Your task to perform on an android device: show emergency info Image 0: 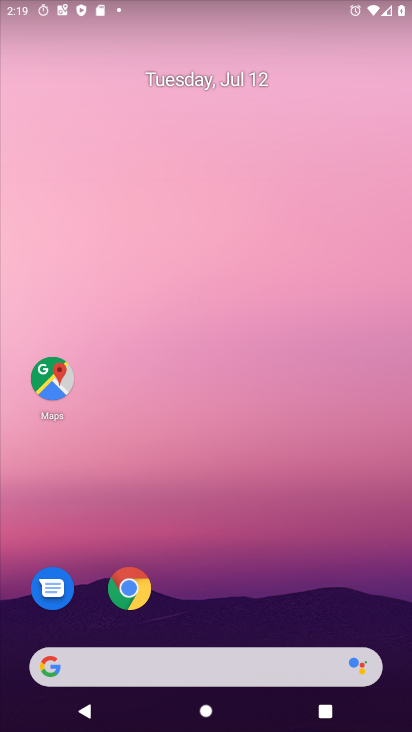
Step 0: click (226, 143)
Your task to perform on an android device: show emergency info Image 1: 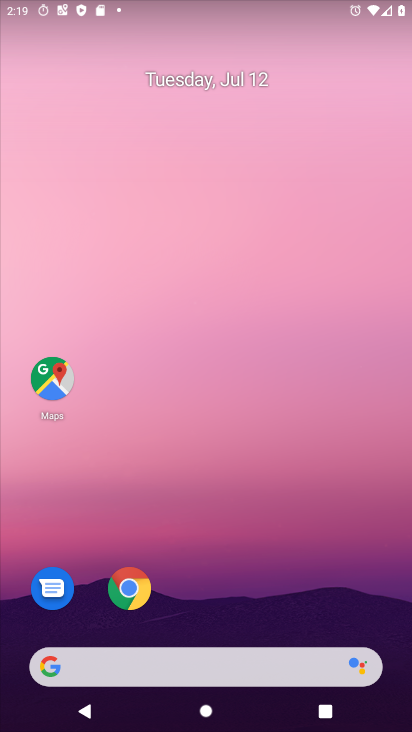
Step 1: drag from (198, 568) to (218, 101)
Your task to perform on an android device: show emergency info Image 2: 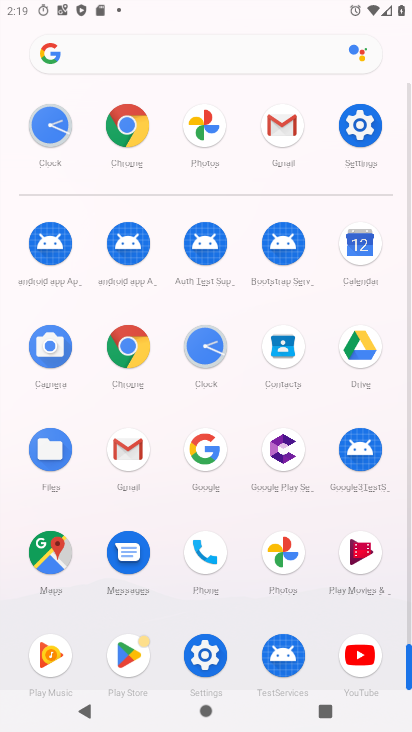
Step 2: click (205, 654)
Your task to perform on an android device: show emergency info Image 3: 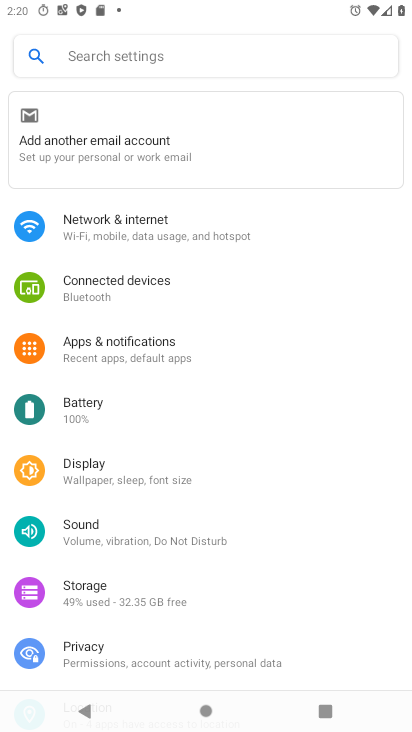
Step 3: drag from (174, 587) to (279, 22)
Your task to perform on an android device: show emergency info Image 4: 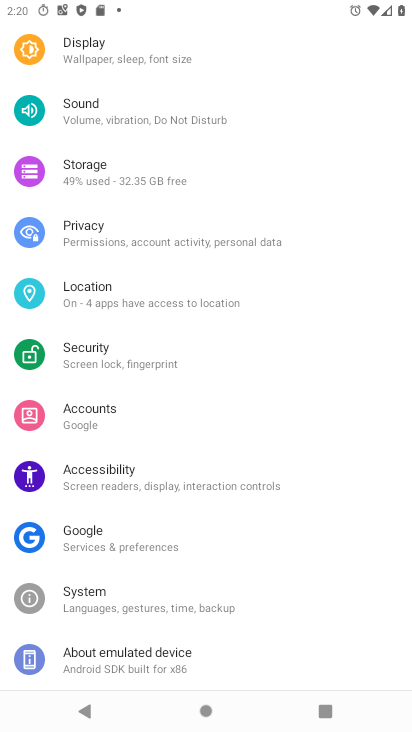
Step 4: drag from (175, 624) to (286, 82)
Your task to perform on an android device: show emergency info Image 5: 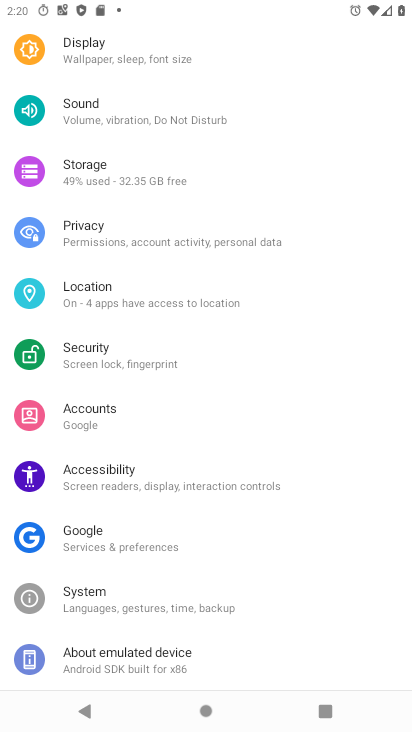
Step 5: click (150, 657)
Your task to perform on an android device: show emergency info Image 6: 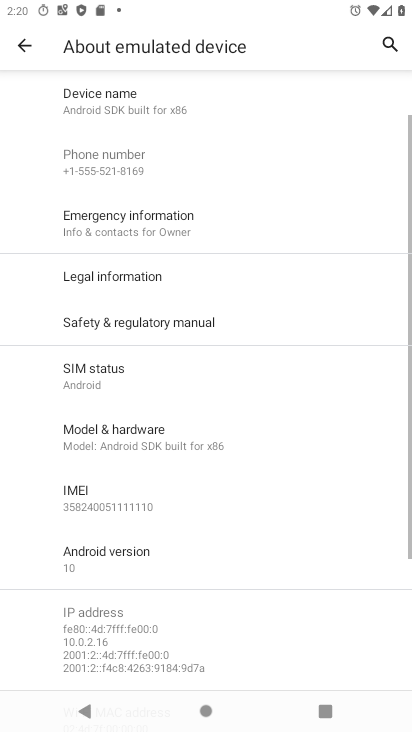
Step 6: click (152, 239)
Your task to perform on an android device: show emergency info Image 7: 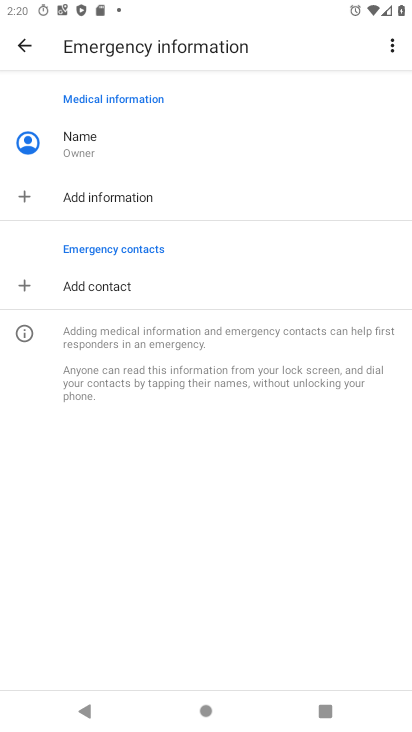
Step 7: task complete